Your task to perform on an android device: turn pop-ups on in chrome Image 0: 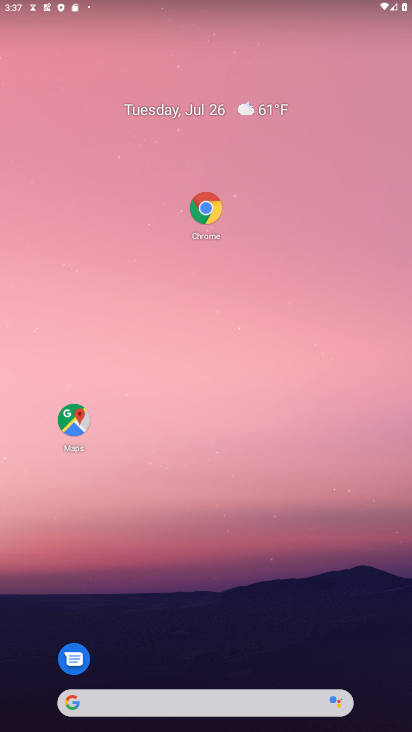
Step 0: click (202, 205)
Your task to perform on an android device: turn pop-ups on in chrome Image 1: 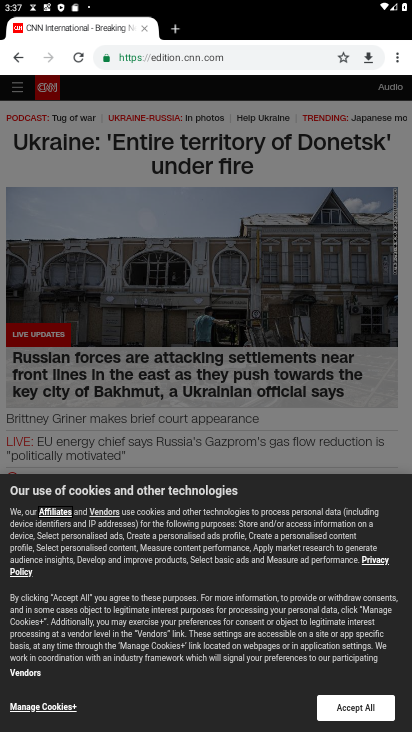
Step 1: click (400, 55)
Your task to perform on an android device: turn pop-ups on in chrome Image 2: 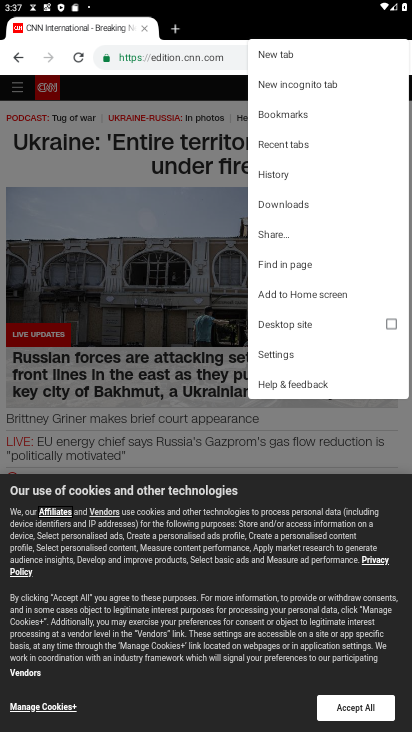
Step 2: click (282, 353)
Your task to perform on an android device: turn pop-ups on in chrome Image 3: 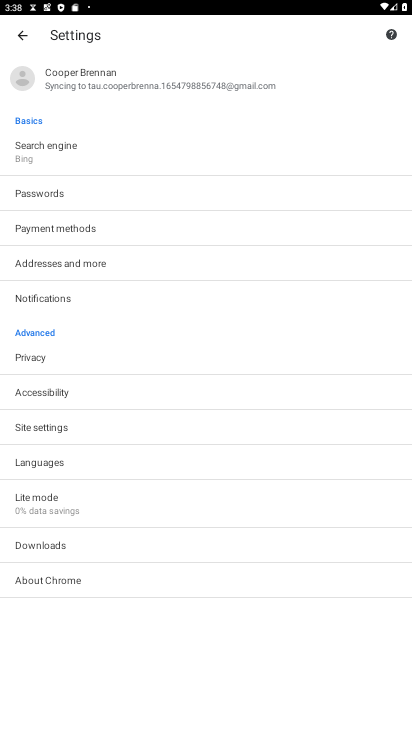
Step 3: click (46, 423)
Your task to perform on an android device: turn pop-ups on in chrome Image 4: 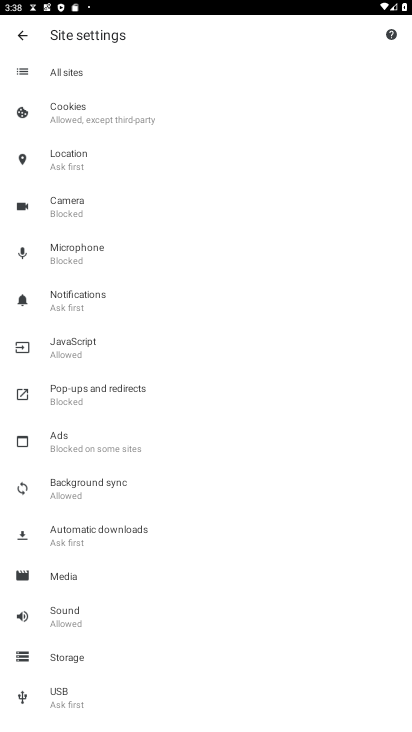
Step 4: drag from (209, 461) to (209, 388)
Your task to perform on an android device: turn pop-ups on in chrome Image 5: 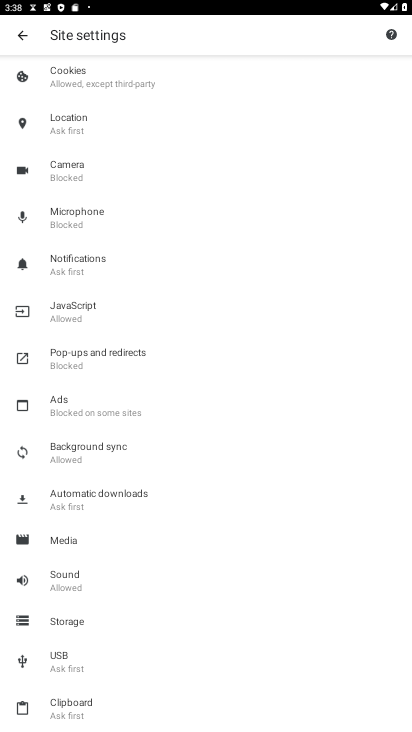
Step 5: click (183, 630)
Your task to perform on an android device: turn pop-ups on in chrome Image 6: 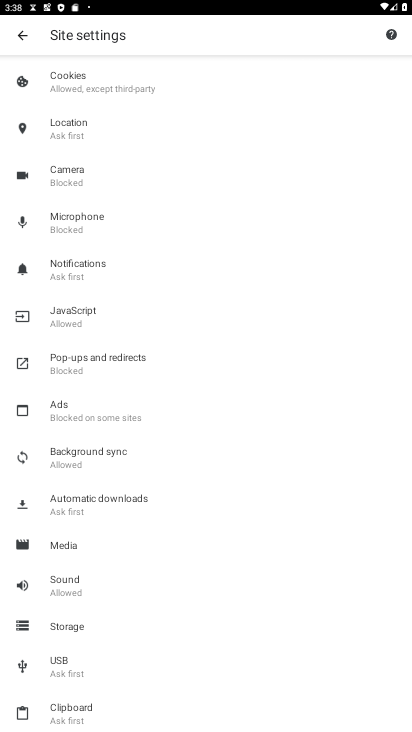
Step 6: click (136, 359)
Your task to perform on an android device: turn pop-ups on in chrome Image 7: 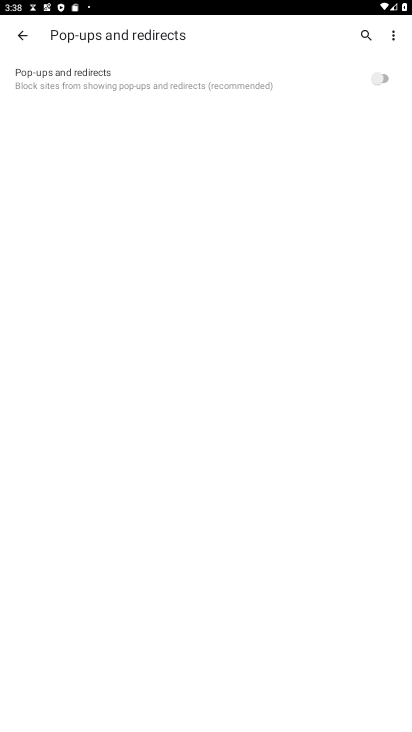
Step 7: click (385, 85)
Your task to perform on an android device: turn pop-ups on in chrome Image 8: 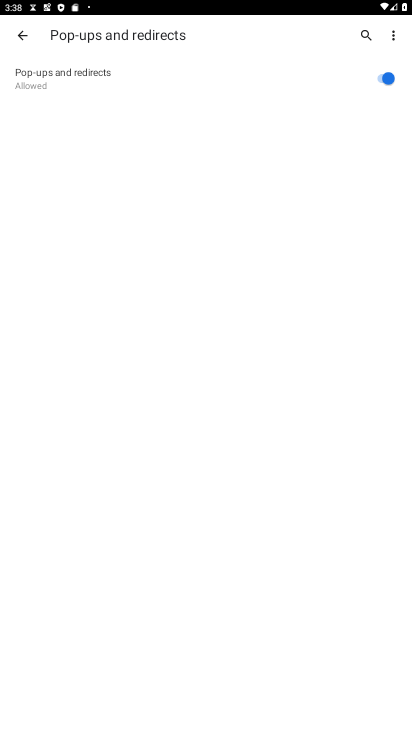
Step 8: task complete